Your task to perform on an android device: move an email to a new category in the gmail app Image 0: 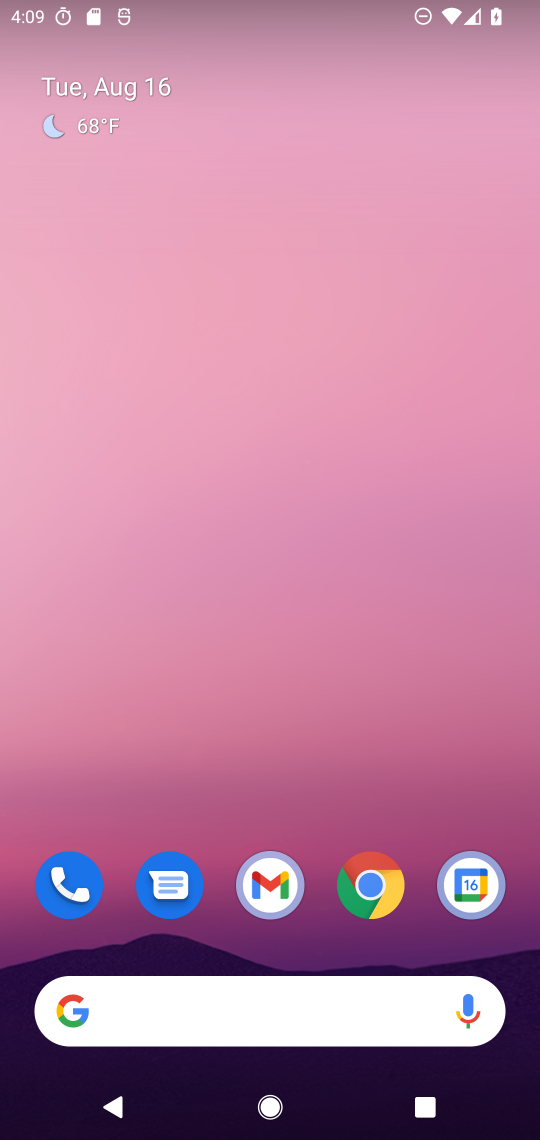
Step 0: drag from (203, 1008) to (186, 400)
Your task to perform on an android device: move an email to a new category in the gmail app Image 1: 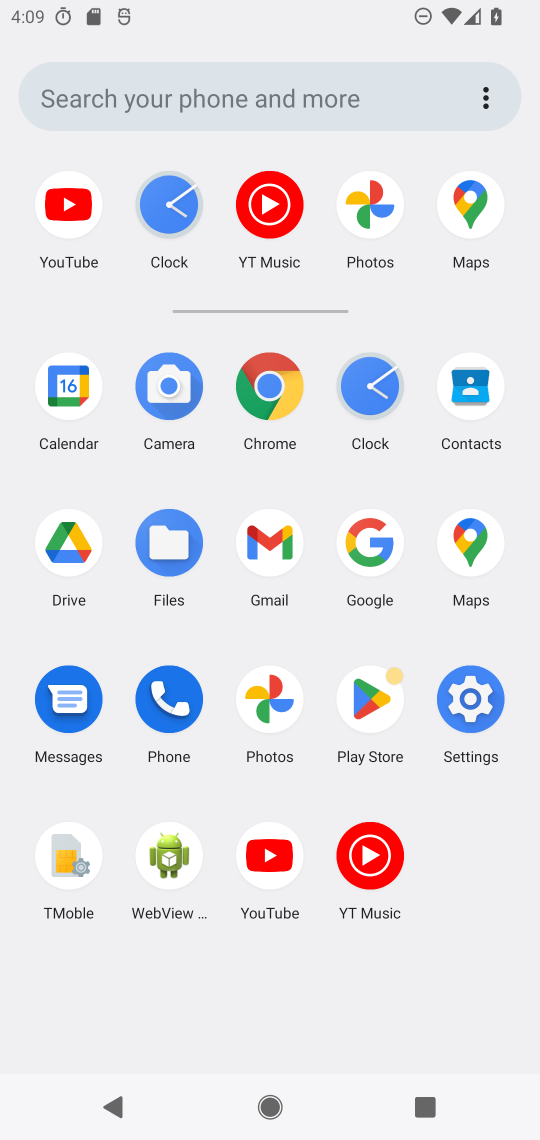
Step 1: click (265, 542)
Your task to perform on an android device: move an email to a new category in the gmail app Image 2: 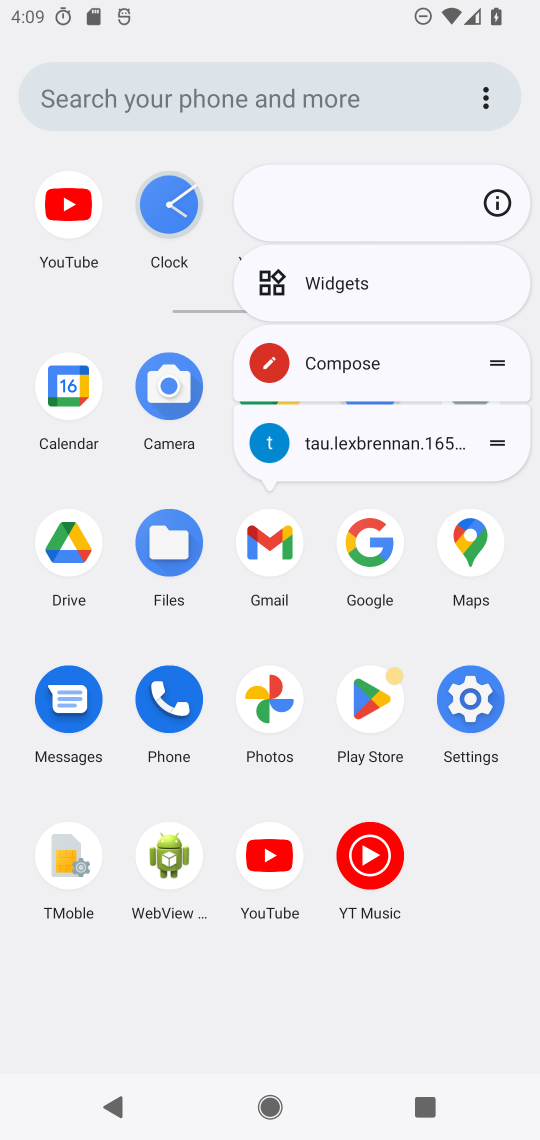
Step 2: click (265, 542)
Your task to perform on an android device: move an email to a new category in the gmail app Image 3: 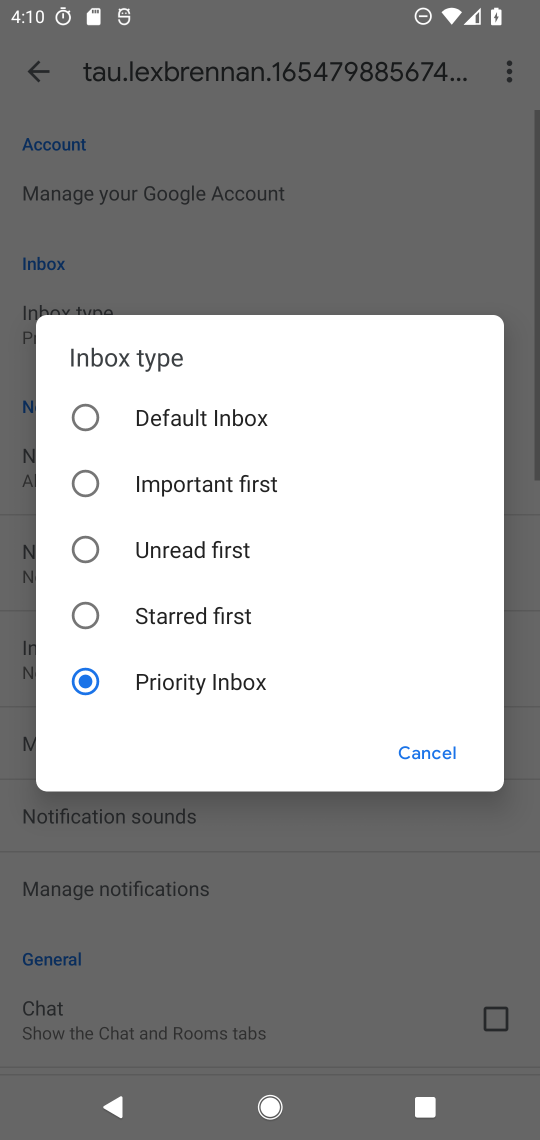
Step 3: click (324, 199)
Your task to perform on an android device: move an email to a new category in the gmail app Image 4: 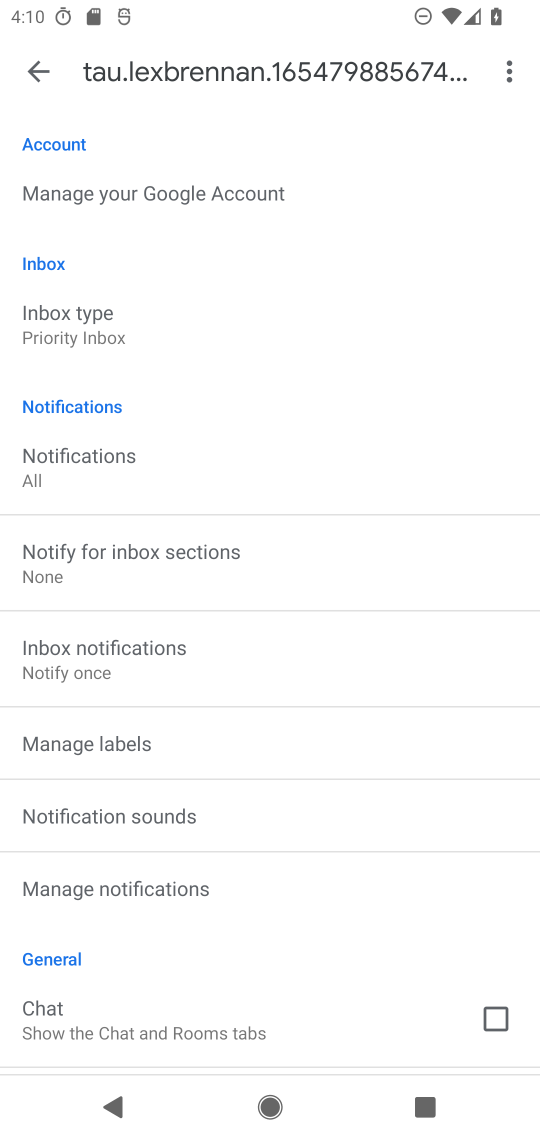
Step 4: click (22, 70)
Your task to perform on an android device: move an email to a new category in the gmail app Image 5: 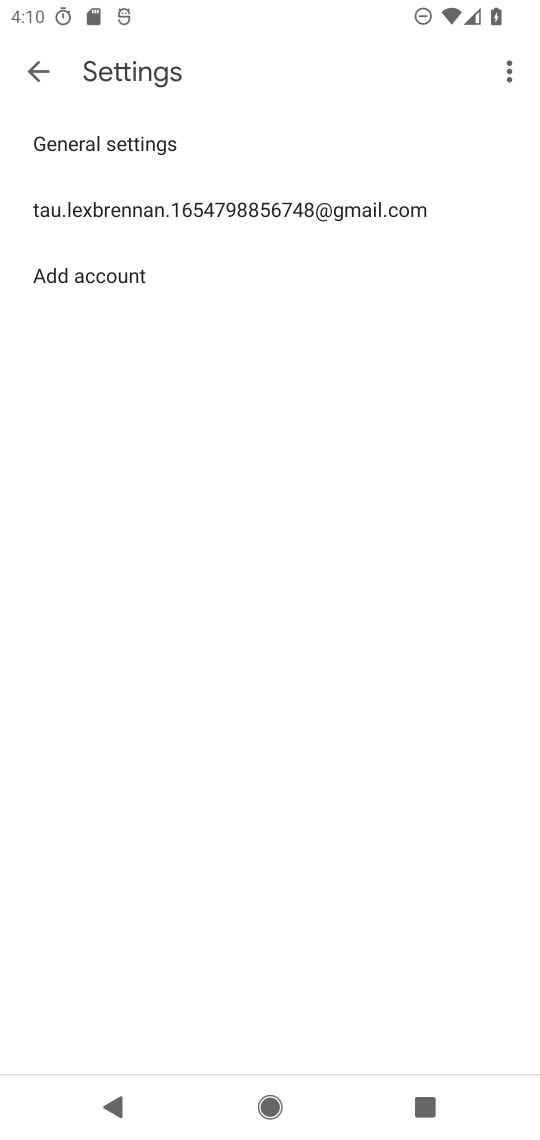
Step 5: click (25, 73)
Your task to perform on an android device: move an email to a new category in the gmail app Image 6: 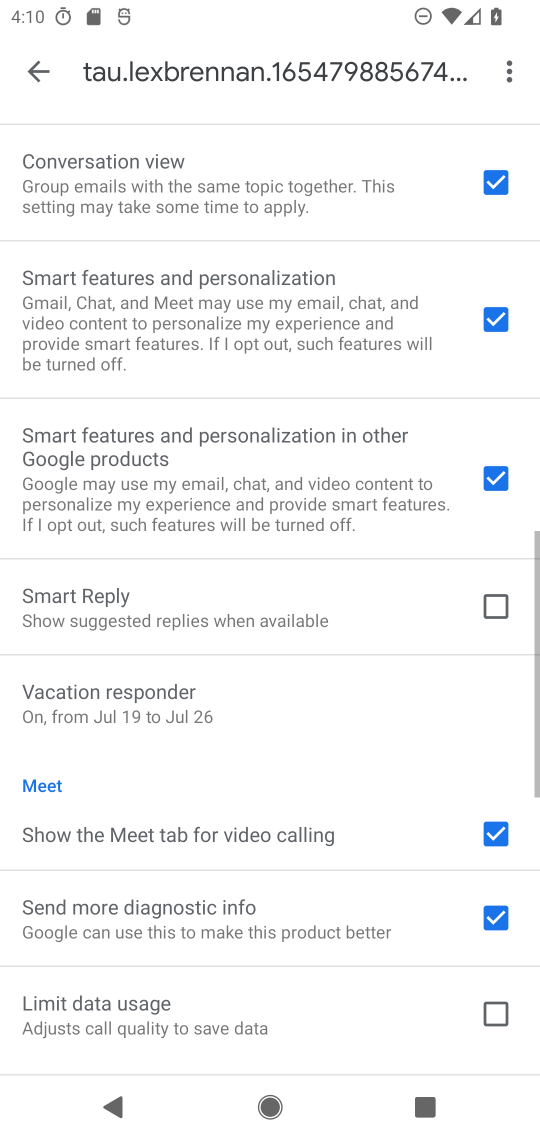
Step 6: click (25, 73)
Your task to perform on an android device: move an email to a new category in the gmail app Image 7: 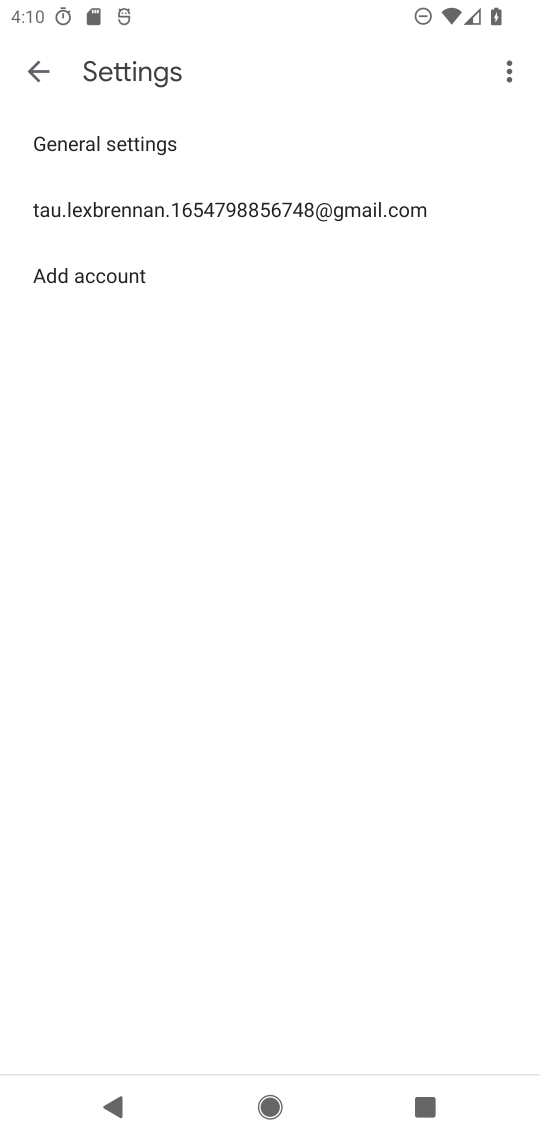
Step 7: click (38, 58)
Your task to perform on an android device: move an email to a new category in the gmail app Image 8: 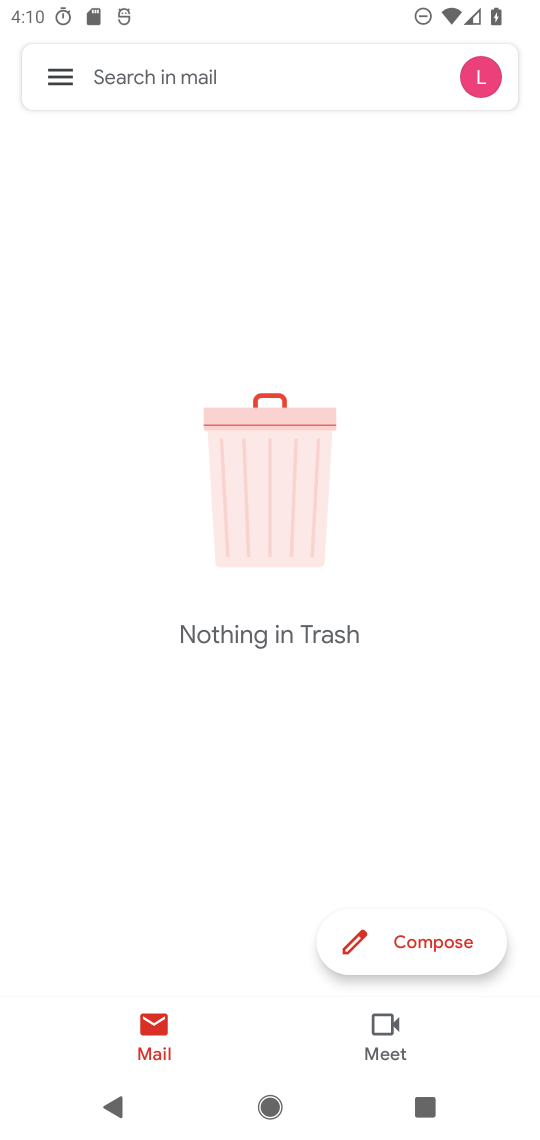
Step 8: click (72, 71)
Your task to perform on an android device: move an email to a new category in the gmail app Image 9: 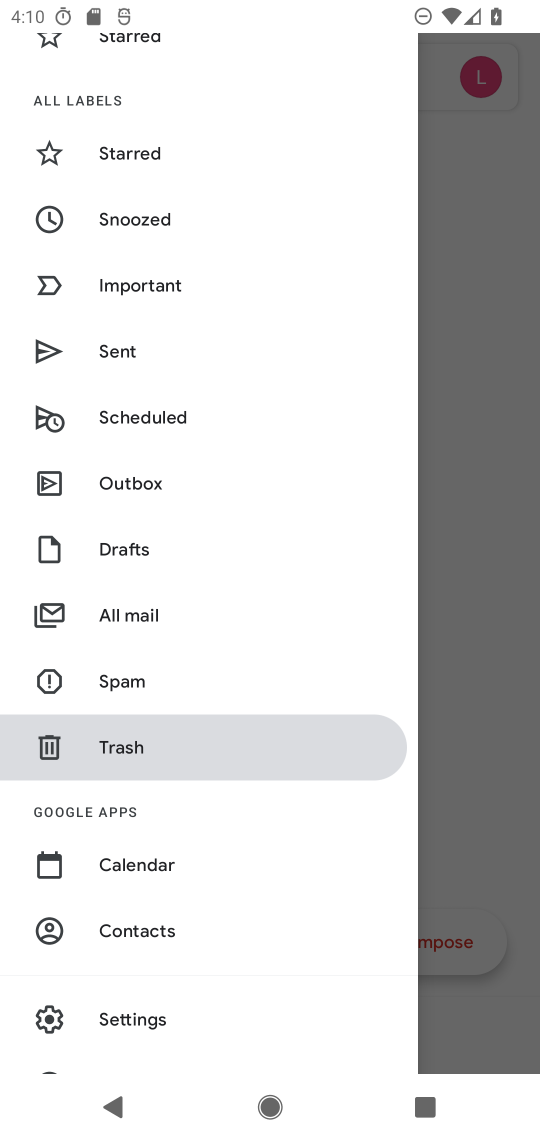
Step 9: click (154, 606)
Your task to perform on an android device: move an email to a new category in the gmail app Image 10: 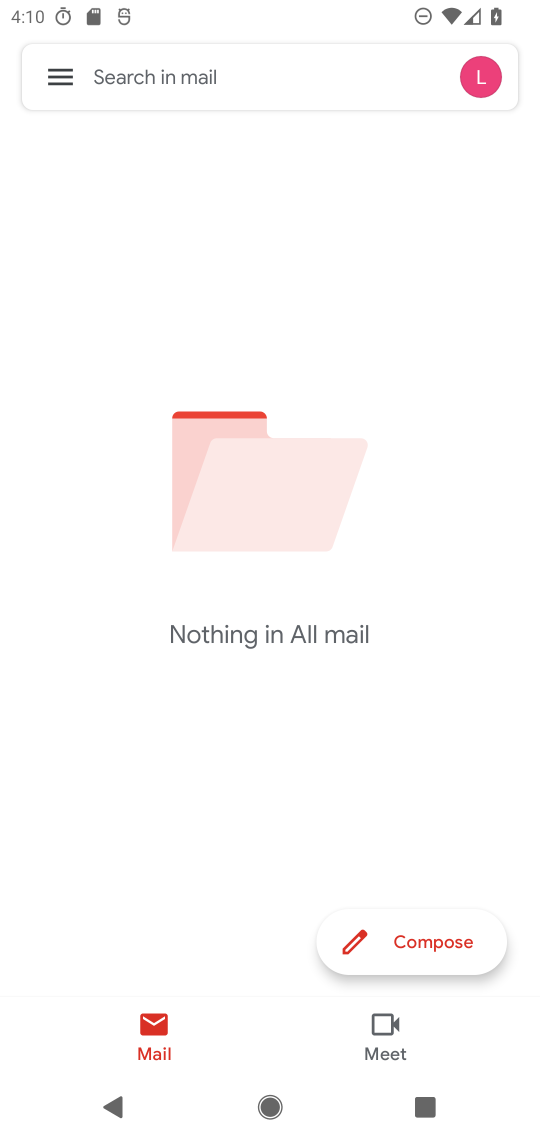
Step 10: task complete